Your task to perform on an android device: change notifications settings Image 0: 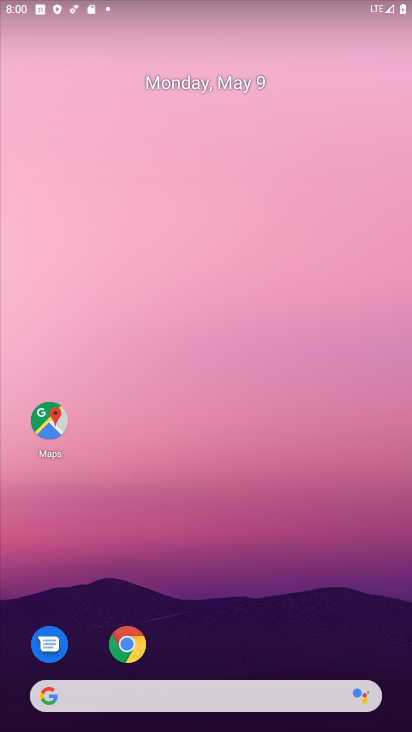
Step 0: drag from (210, 643) to (259, 239)
Your task to perform on an android device: change notifications settings Image 1: 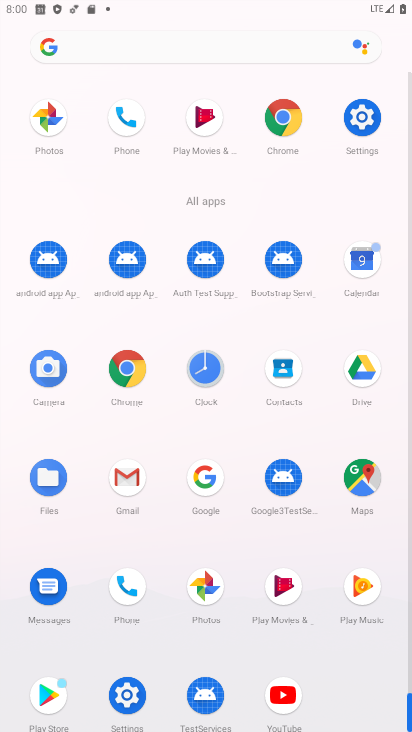
Step 1: click (363, 119)
Your task to perform on an android device: change notifications settings Image 2: 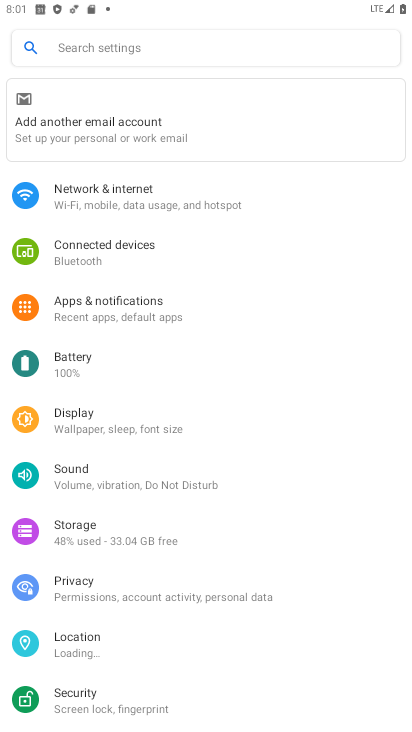
Step 2: click (131, 307)
Your task to perform on an android device: change notifications settings Image 3: 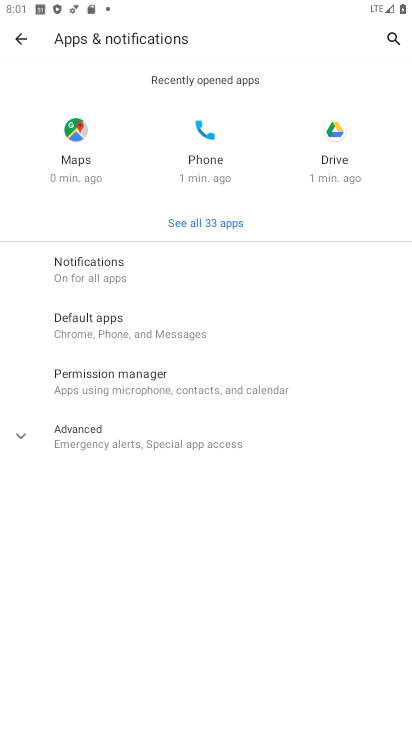
Step 3: click (117, 272)
Your task to perform on an android device: change notifications settings Image 4: 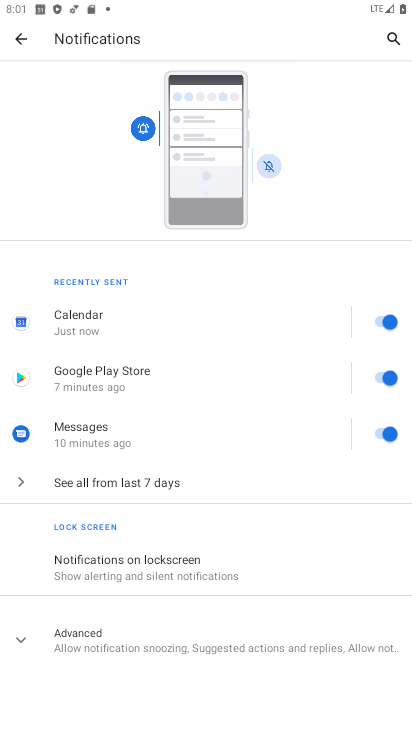
Step 4: click (181, 569)
Your task to perform on an android device: change notifications settings Image 5: 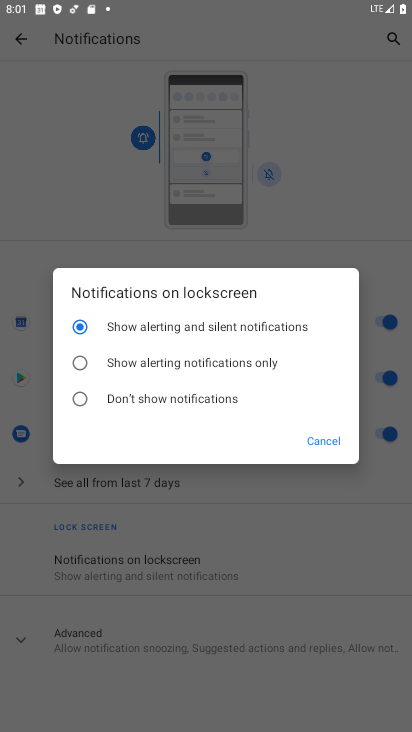
Step 5: click (199, 374)
Your task to perform on an android device: change notifications settings Image 6: 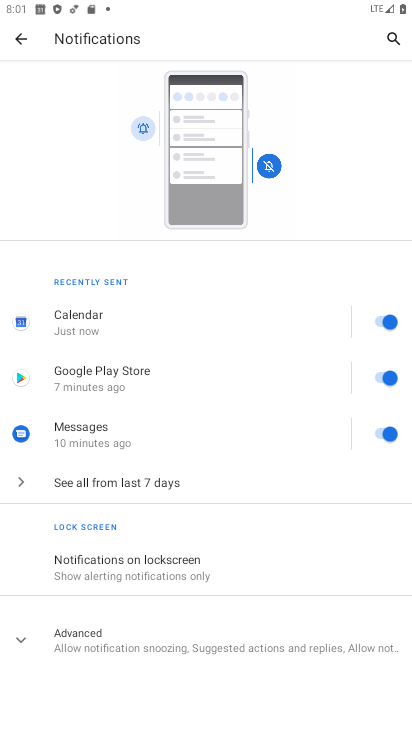
Step 6: task complete